Your task to perform on an android device: Open Google Maps and go to "Timeline" Image 0: 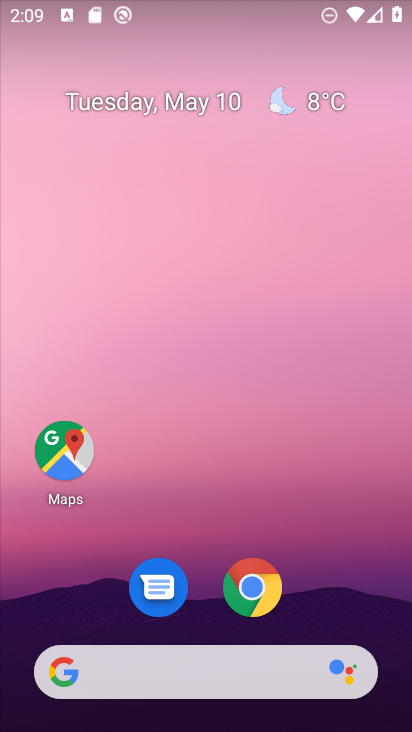
Step 0: drag from (390, 671) to (322, 175)
Your task to perform on an android device: Open Google Maps and go to "Timeline" Image 1: 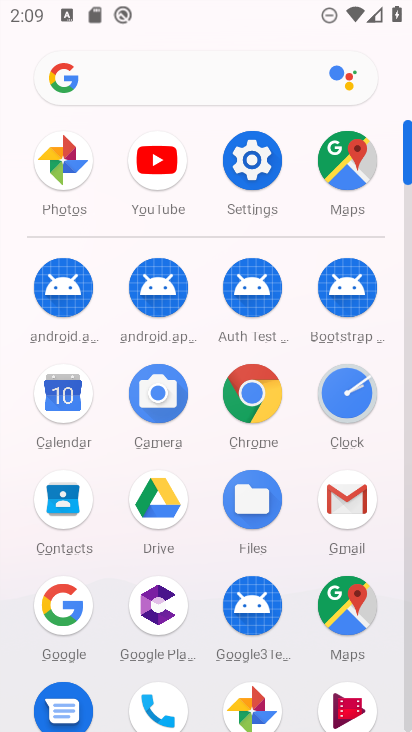
Step 1: click (345, 596)
Your task to perform on an android device: Open Google Maps and go to "Timeline" Image 2: 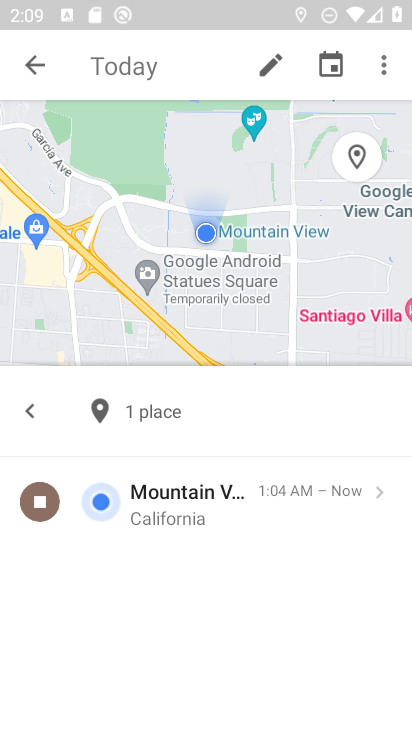
Step 2: task complete